Your task to perform on an android device: Open settings on Google Maps Image 0: 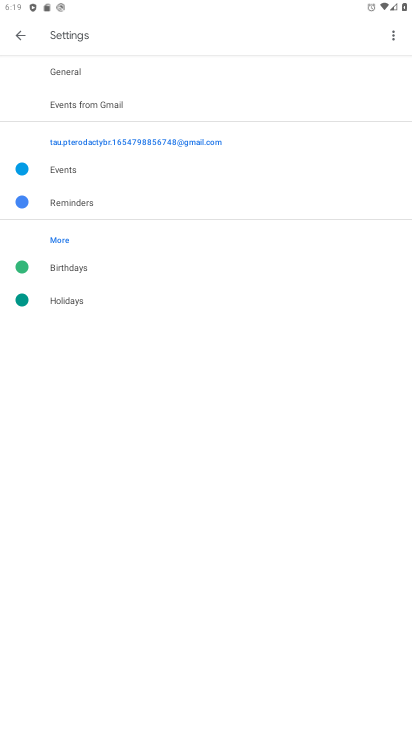
Step 0: press home button
Your task to perform on an android device: Open settings on Google Maps Image 1: 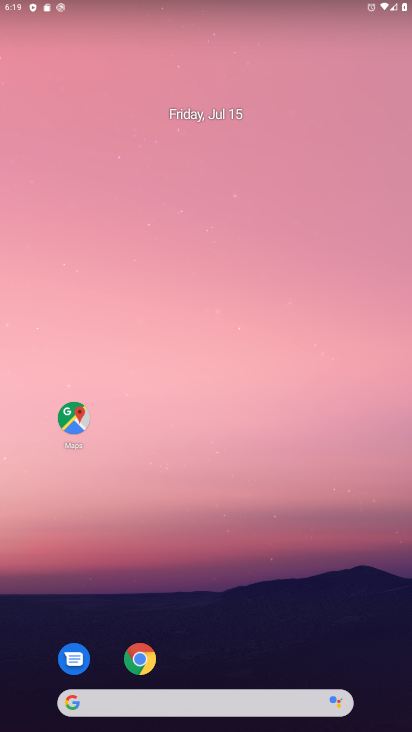
Step 1: click (78, 420)
Your task to perform on an android device: Open settings on Google Maps Image 2: 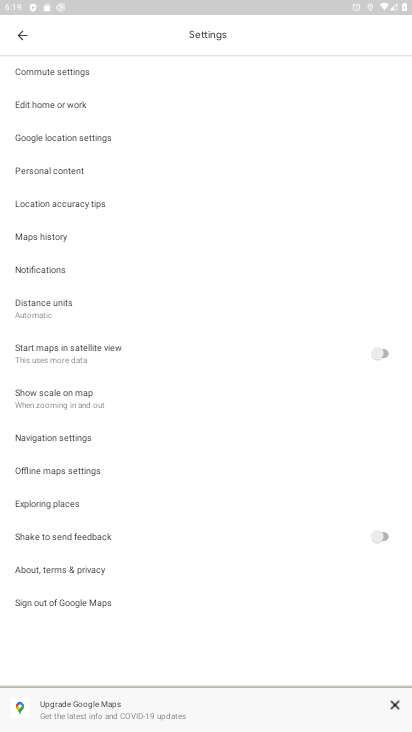
Step 2: press back button
Your task to perform on an android device: Open settings on Google Maps Image 3: 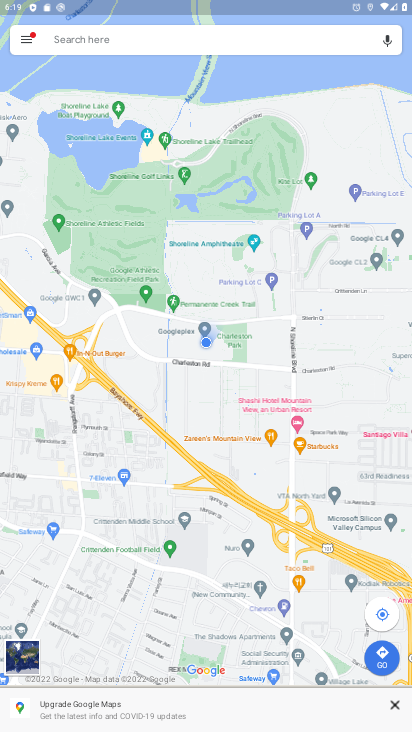
Step 3: click (31, 37)
Your task to perform on an android device: Open settings on Google Maps Image 4: 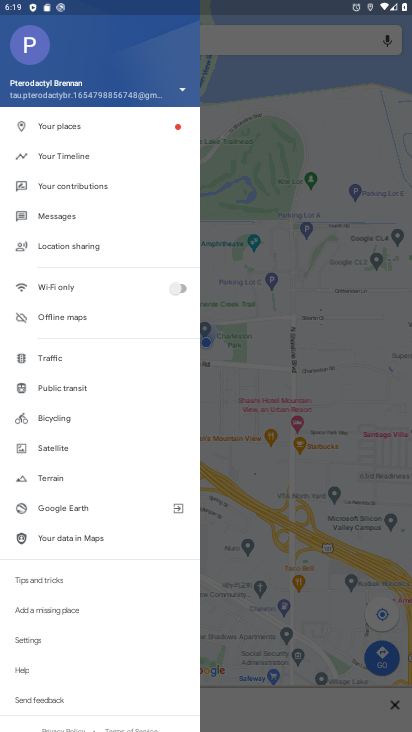
Step 4: click (28, 642)
Your task to perform on an android device: Open settings on Google Maps Image 5: 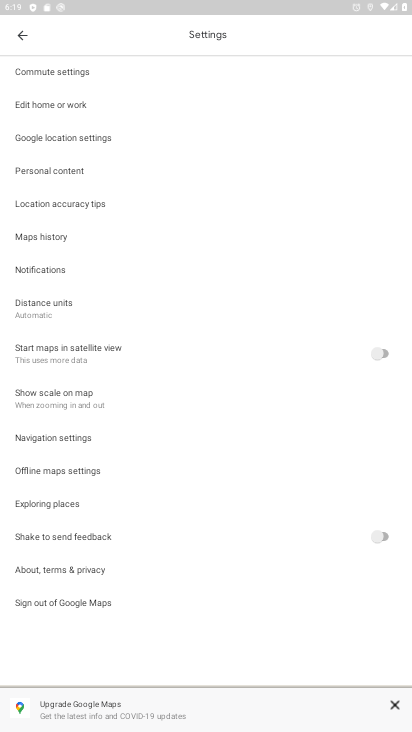
Step 5: task complete